Your task to perform on an android device: empty trash in the gmail app Image 0: 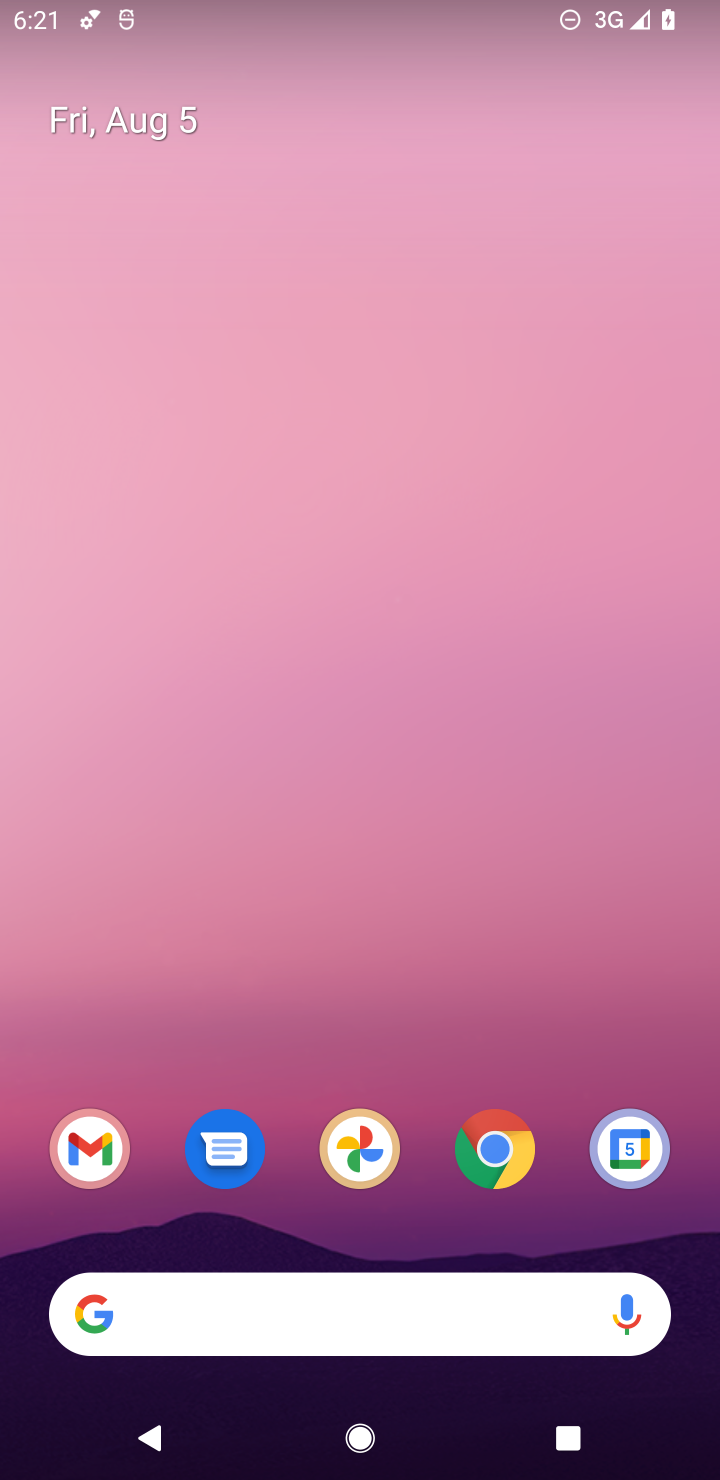
Step 0: click (99, 1140)
Your task to perform on an android device: empty trash in the gmail app Image 1: 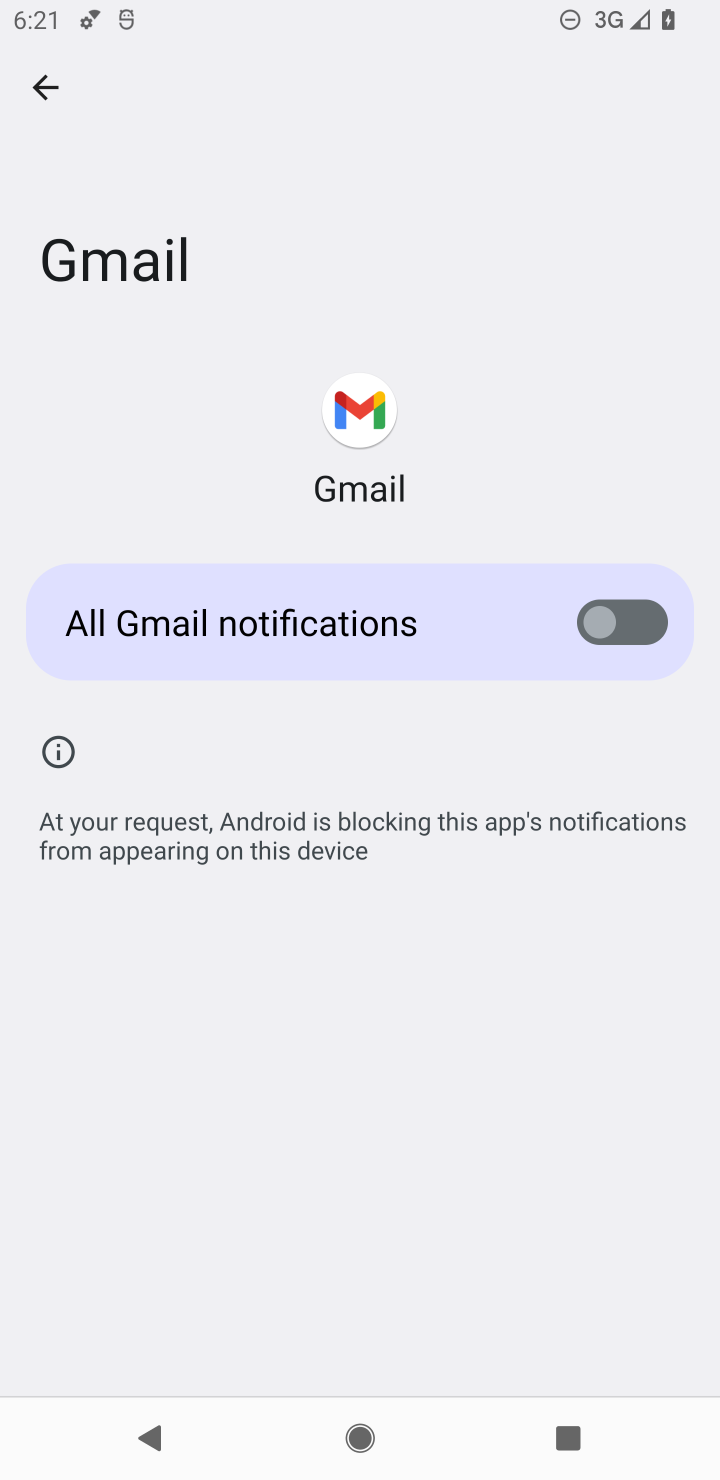
Step 1: click (41, 79)
Your task to perform on an android device: empty trash in the gmail app Image 2: 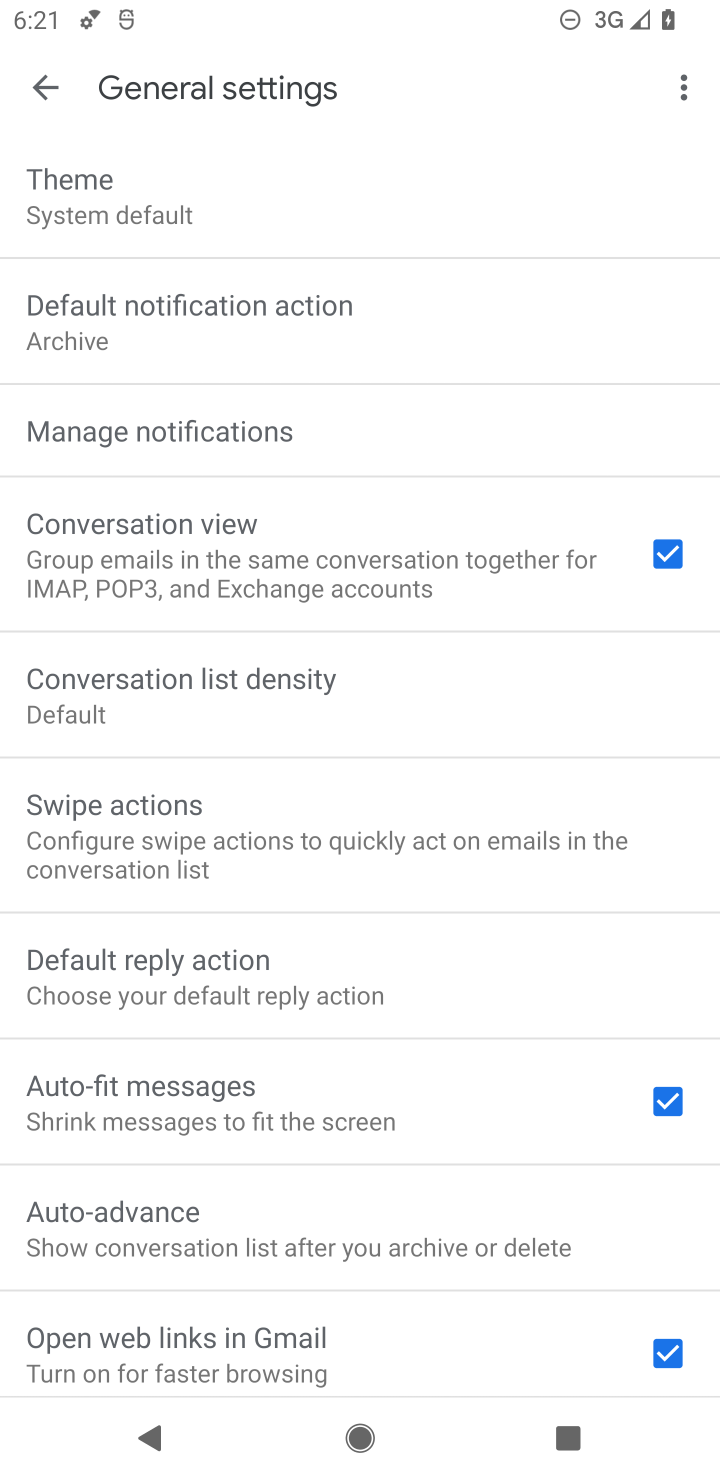
Step 2: click (41, 79)
Your task to perform on an android device: empty trash in the gmail app Image 3: 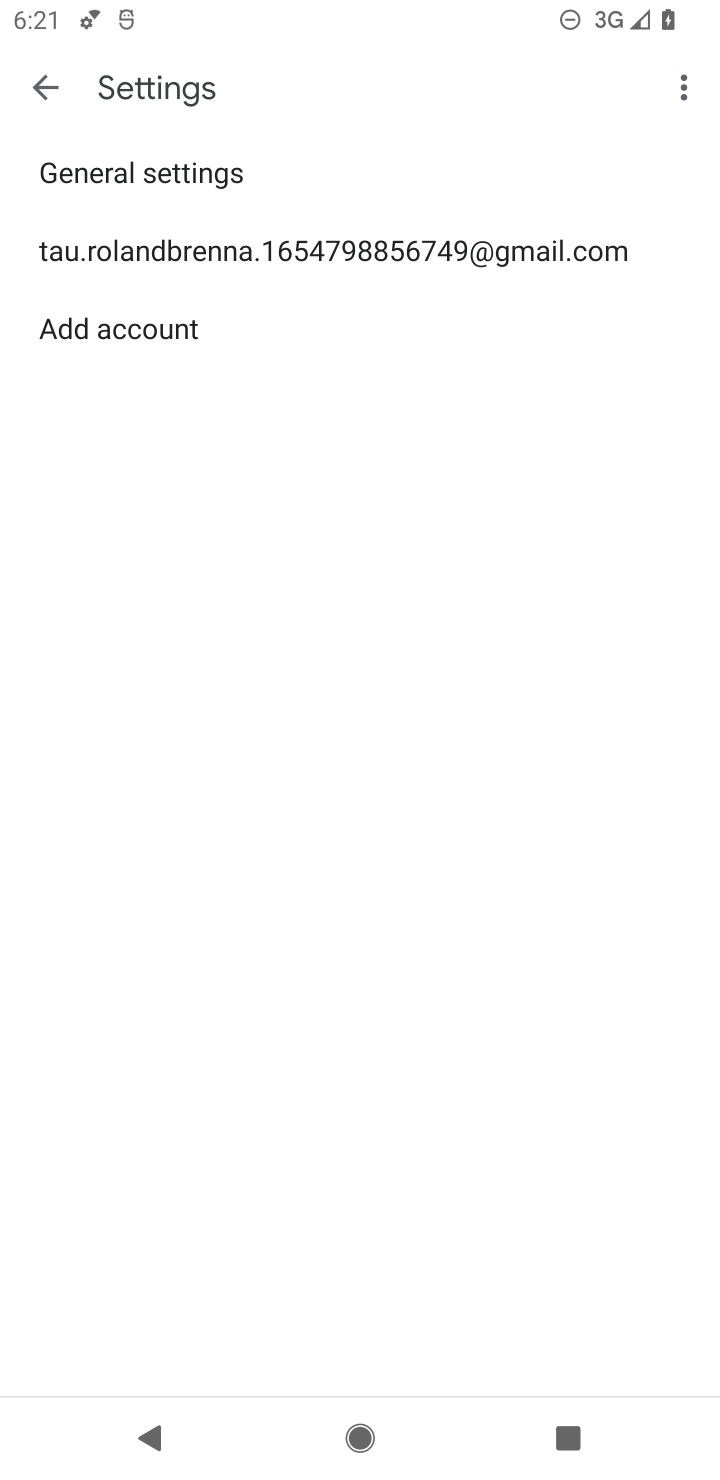
Step 3: click (41, 79)
Your task to perform on an android device: empty trash in the gmail app Image 4: 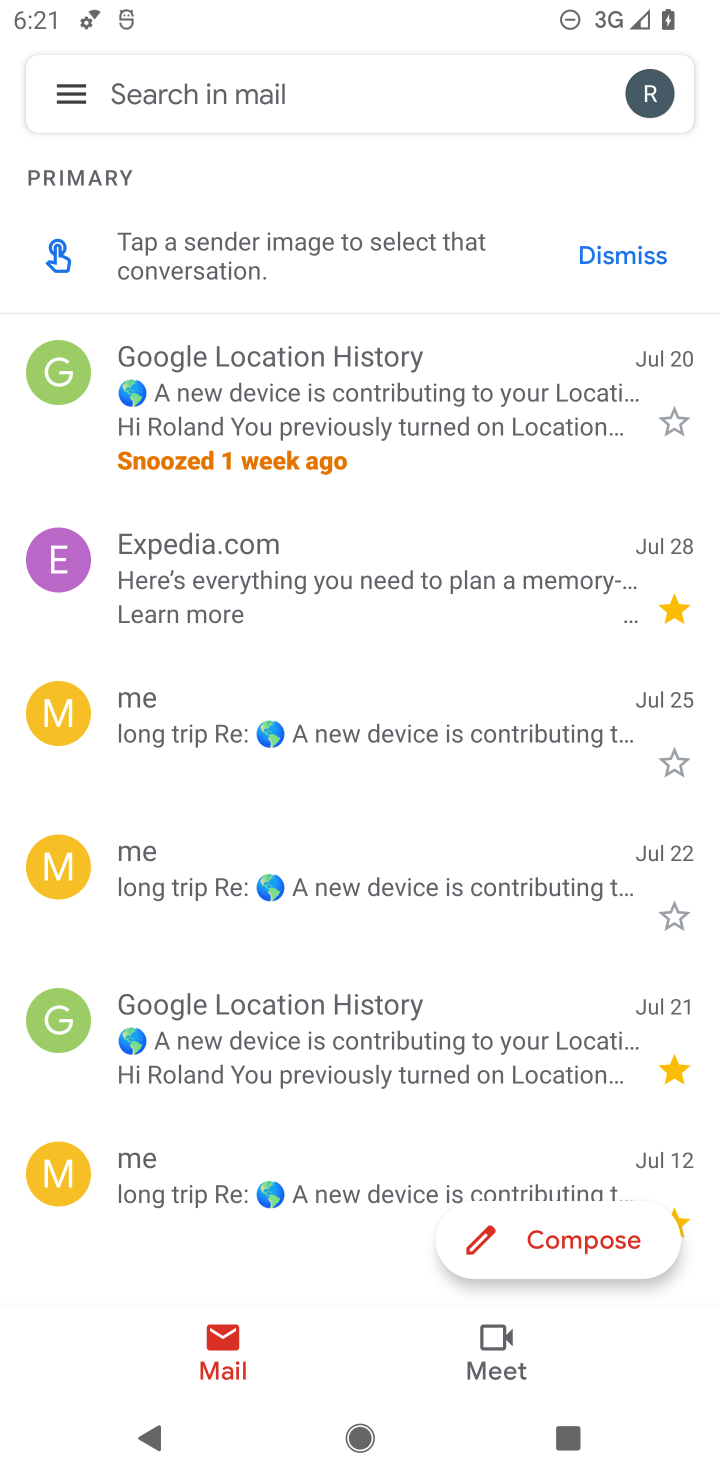
Step 4: click (74, 91)
Your task to perform on an android device: empty trash in the gmail app Image 5: 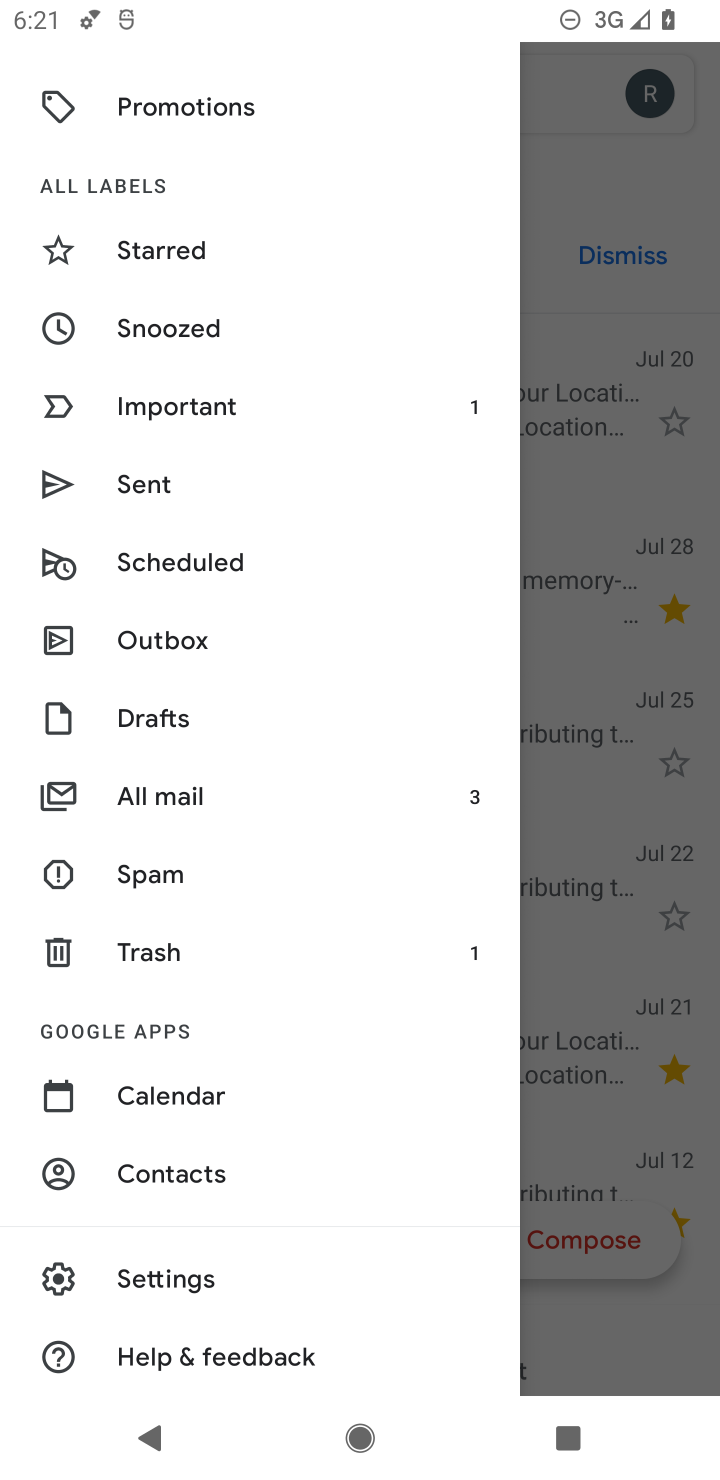
Step 5: click (149, 943)
Your task to perform on an android device: empty trash in the gmail app Image 6: 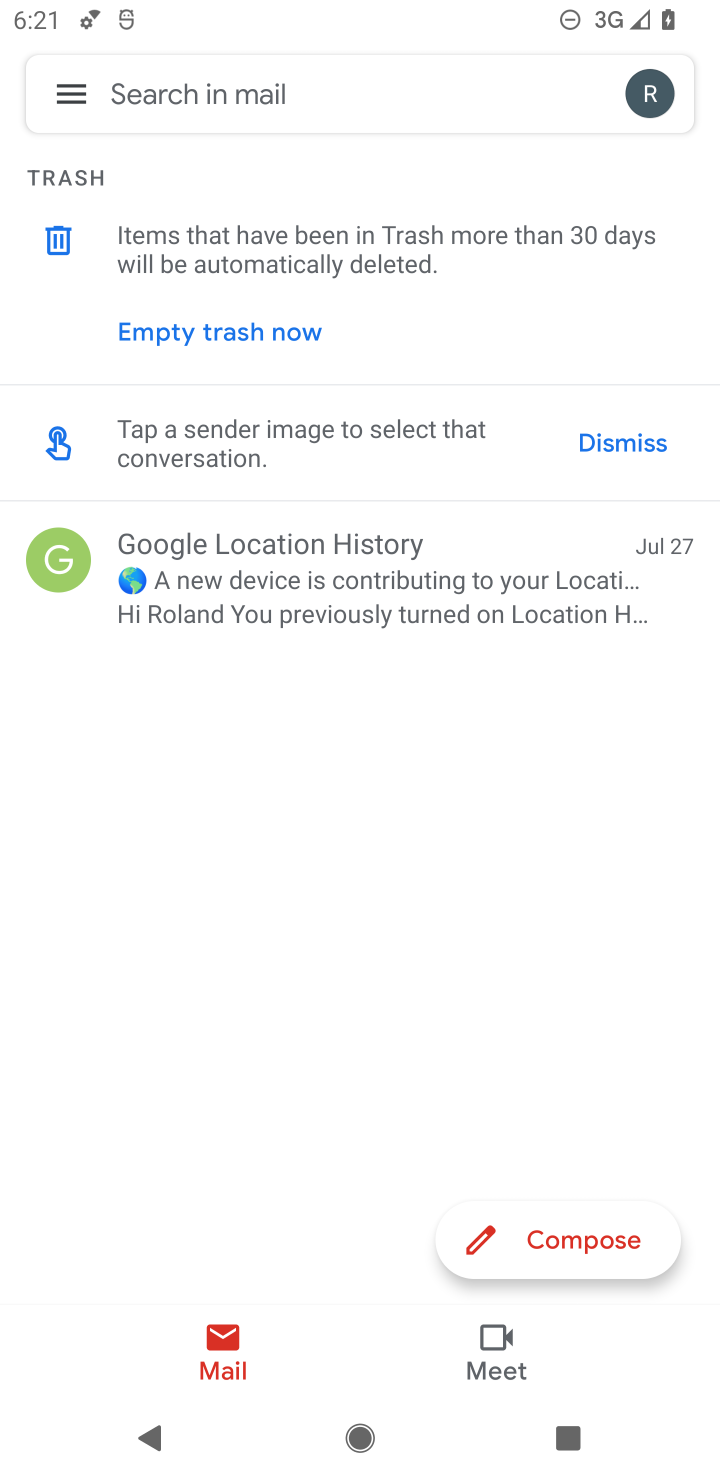
Step 6: click (137, 327)
Your task to perform on an android device: empty trash in the gmail app Image 7: 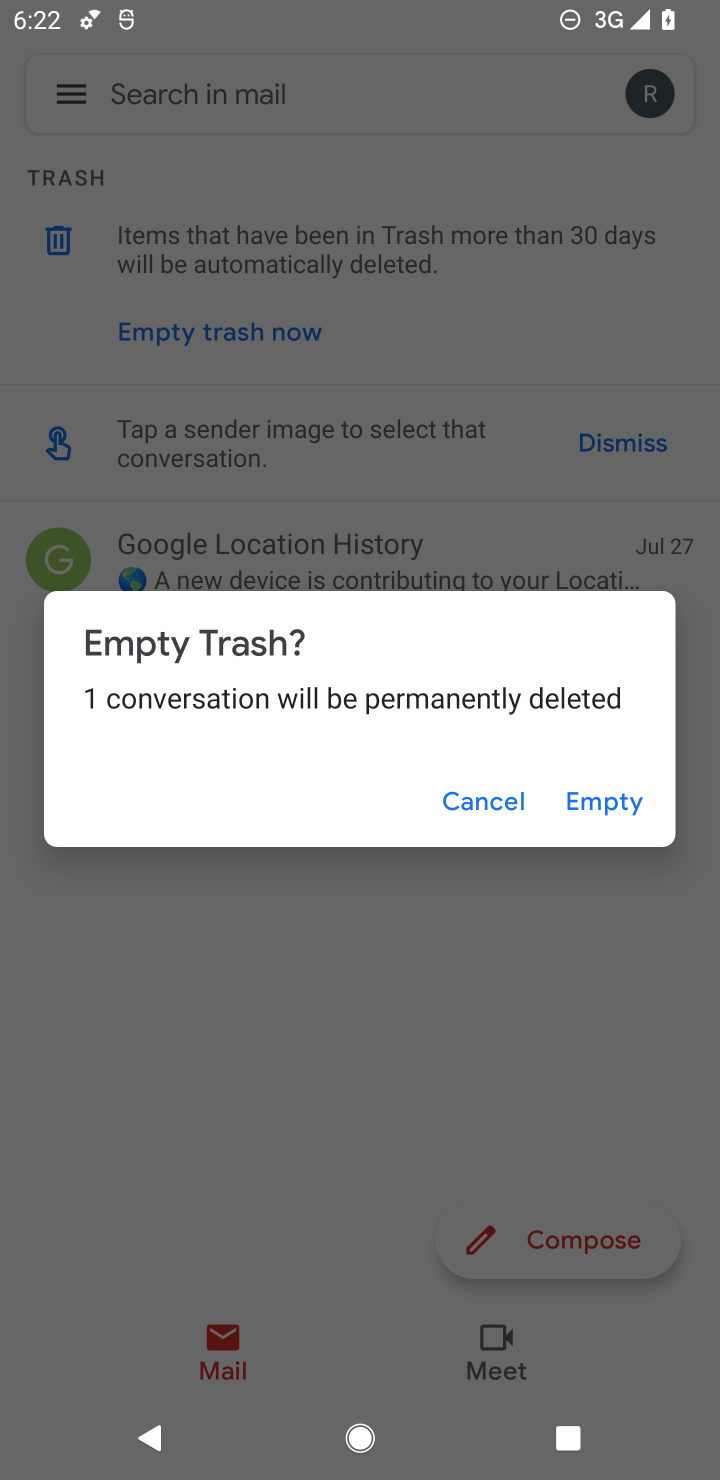
Step 7: click (578, 798)
Your task to perform on an android device: empty trash in the gmail app Image 8: 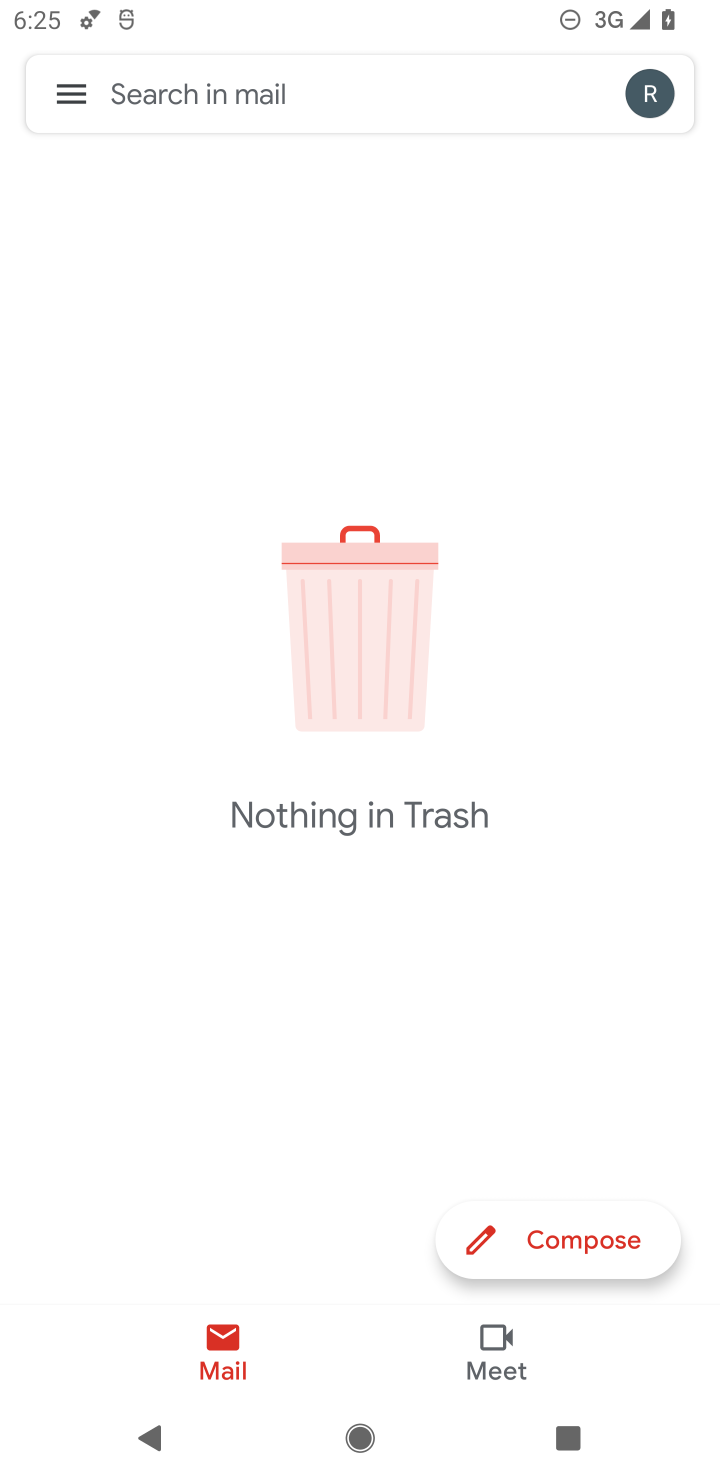
Step 8: task complete